Your task to perform on an android device: Search for sushi restaurants on Maps Image 0: 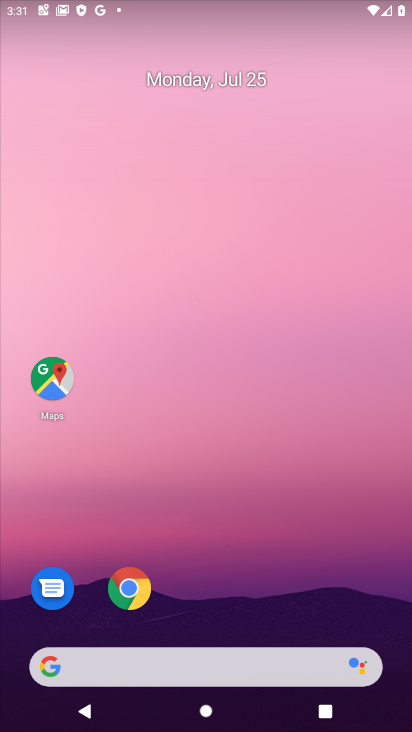
Step 0: drag from (398, 710) to (352, 226)
Your task to perform on an android device: Search for sushi restaurants on Maps Image 1: 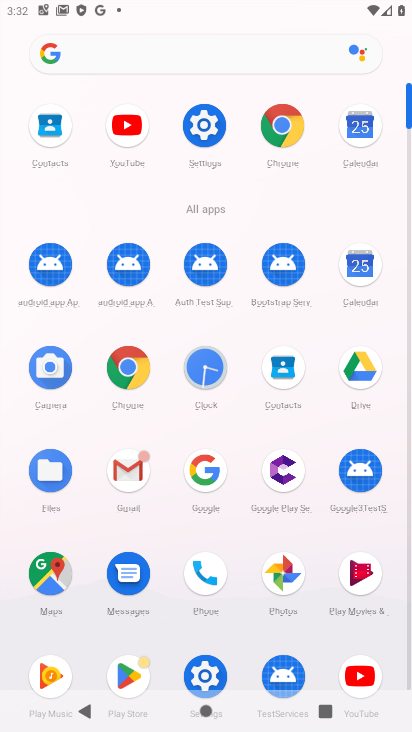
Step 1: click (56, 579)
Your task to perform on an android device: Search for sushi restaurants on Maps Image 2: 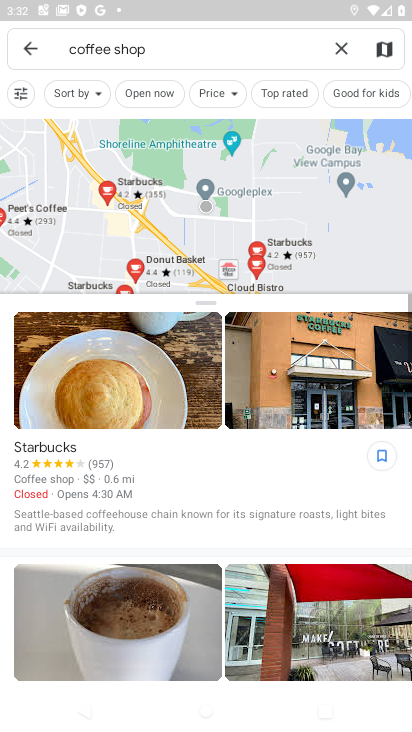
Step 2: click (334, 48)
Your task to perform on an android device: Search for sushi restaurants on Maps Image 3: 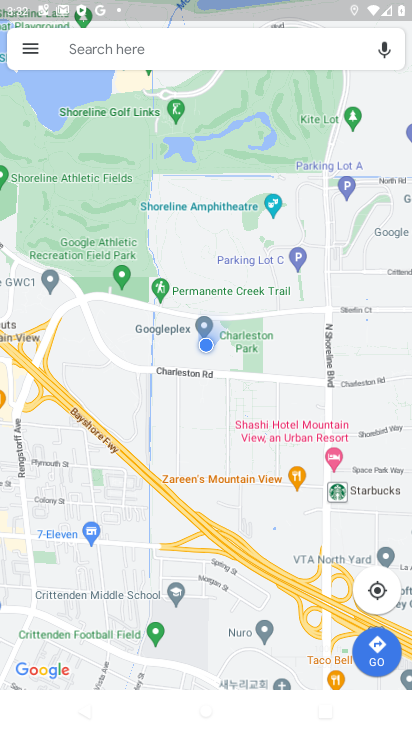
Step 3: click (149, 51)
Your task to perform on an android device: Search for sushi restaurants on Maps Image 4: 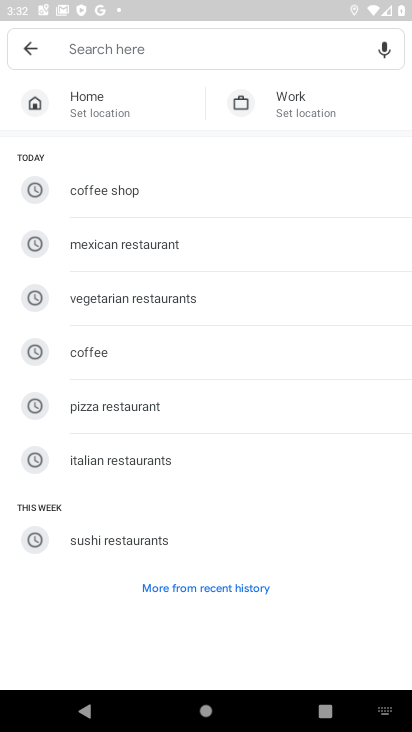
Step 4: type "sushi restaurants"
Your task to perform on an android device: Search for sushi restaurants on Maps Image 5: 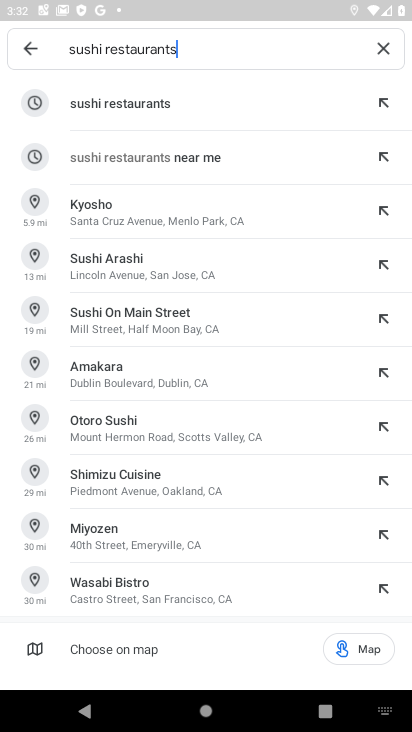
Step 5: click (134, 102)
Your task to perform on an android device: Search for sushi restaurants on Maps Image 6: 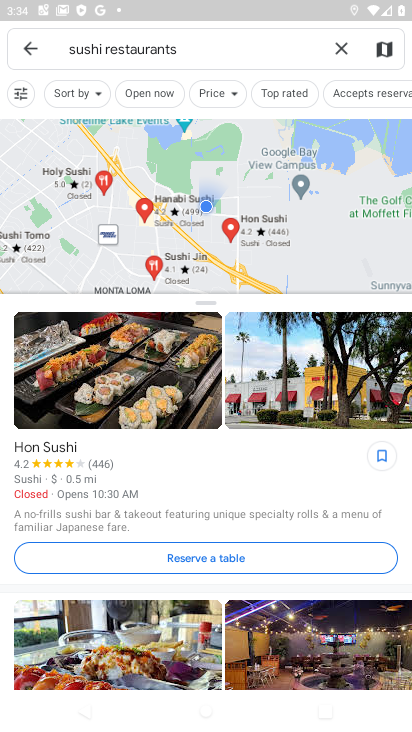
Step 6: task complete